Your task to perform on an android device: When is my next meeting? Image 0: 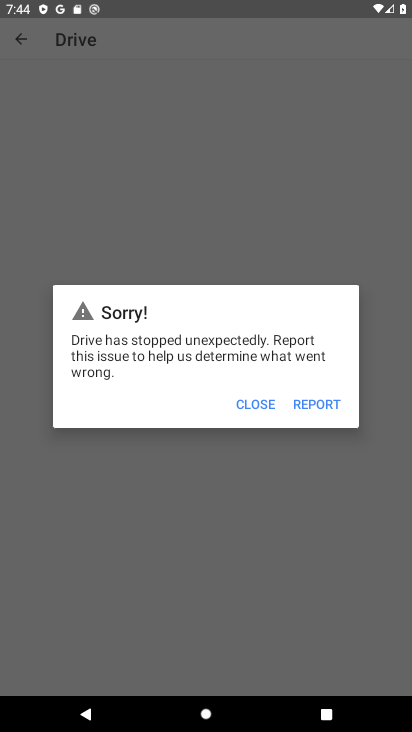
Step 0: press home button
Your task to perform on an android device: When is my next meeting? Image 1: 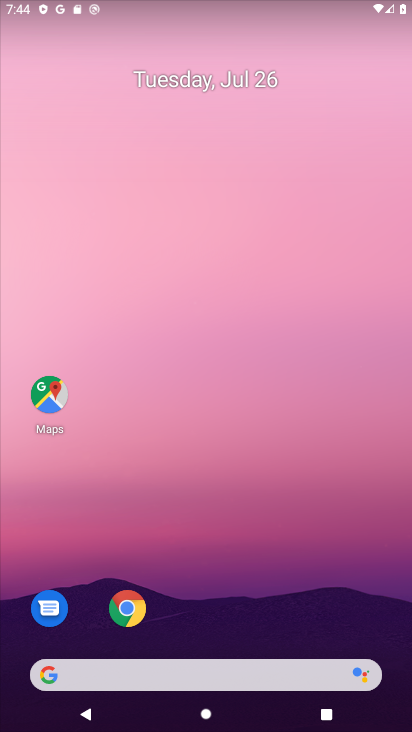
Step 1: drag from (136, 649) to (168, 205)
Your task to perform on an android device: When is my next meeting? Image 2: 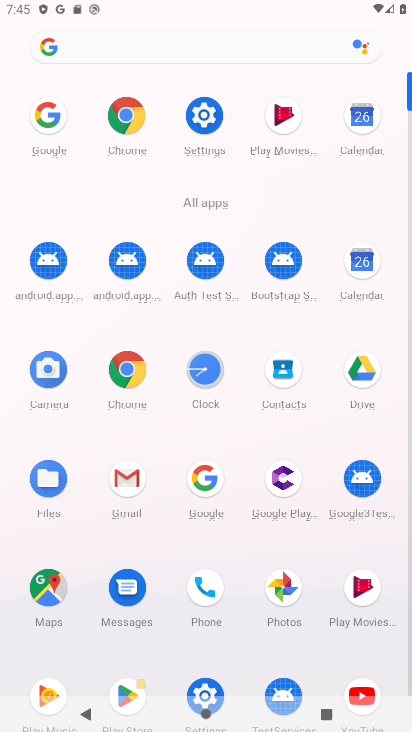
Step 2: click (349, 269)
Your task to perform on an android device: When is my next meeting? Image 3: 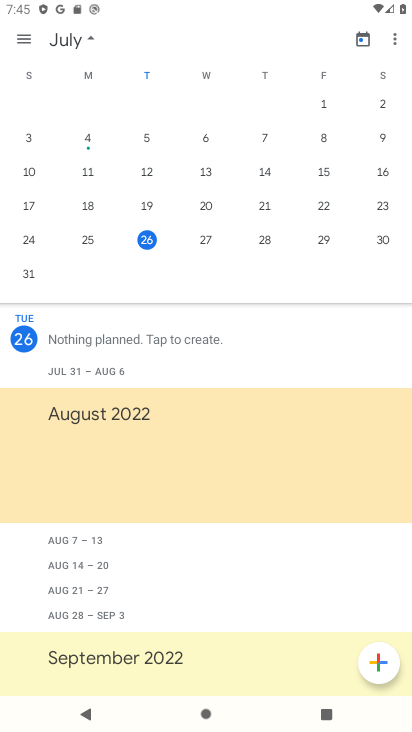
Step 3: click (141, 242)
Your task to perform on an android device: When is my next meeting? Image 4: 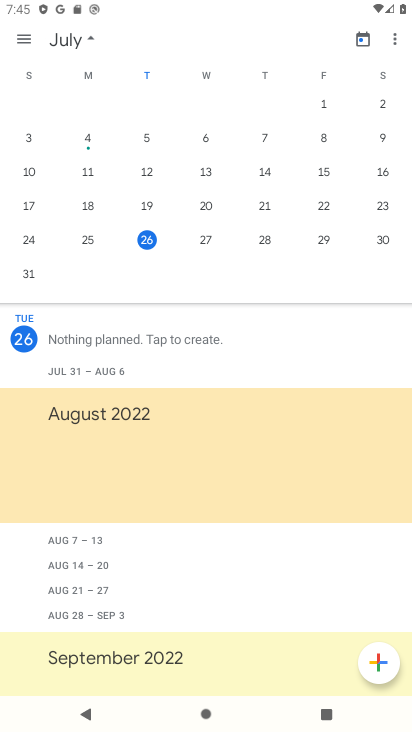
Step 4: task complete